Your task to perform on an android device: stop showing notifications on the lock screen Image 0: 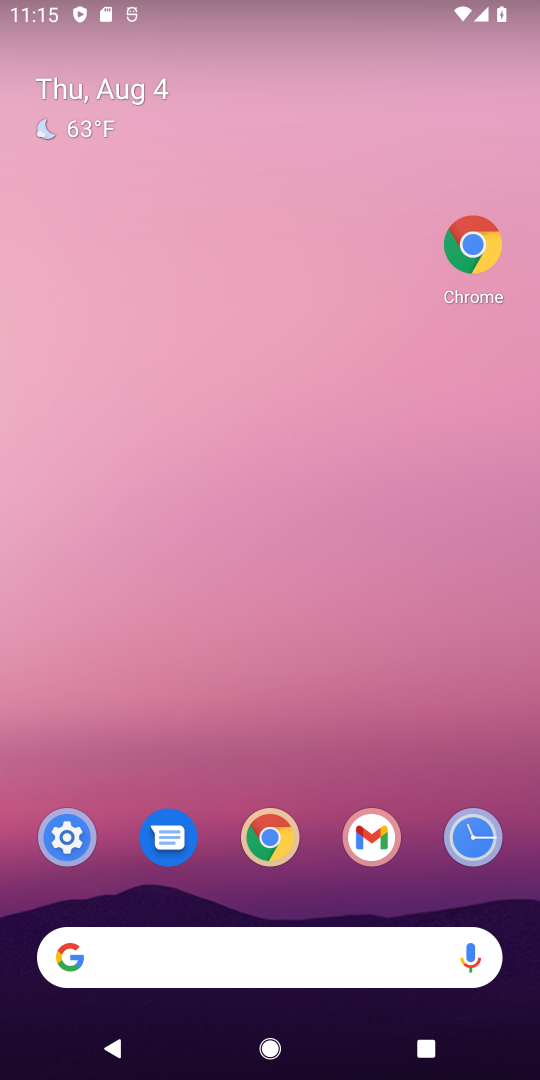
Step 0: drag from (318, 894) to (275, 164)
Your task to perform on an android device: stop showing notifications on the lock screen Image 1: 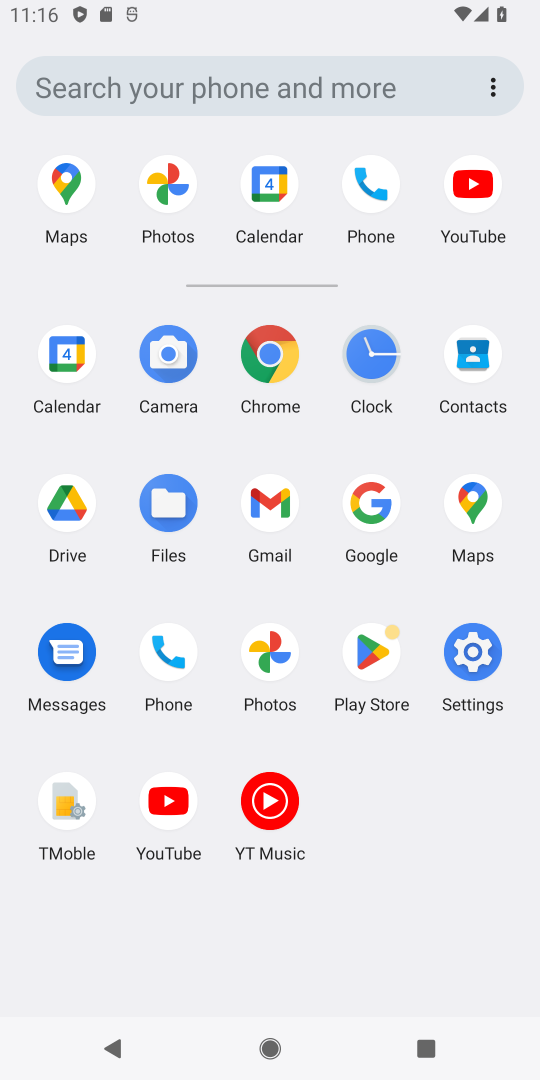
Step 1: click (472, 651)
Your task to perform on an android device: stop showing notifications on the lock screen Image 2: 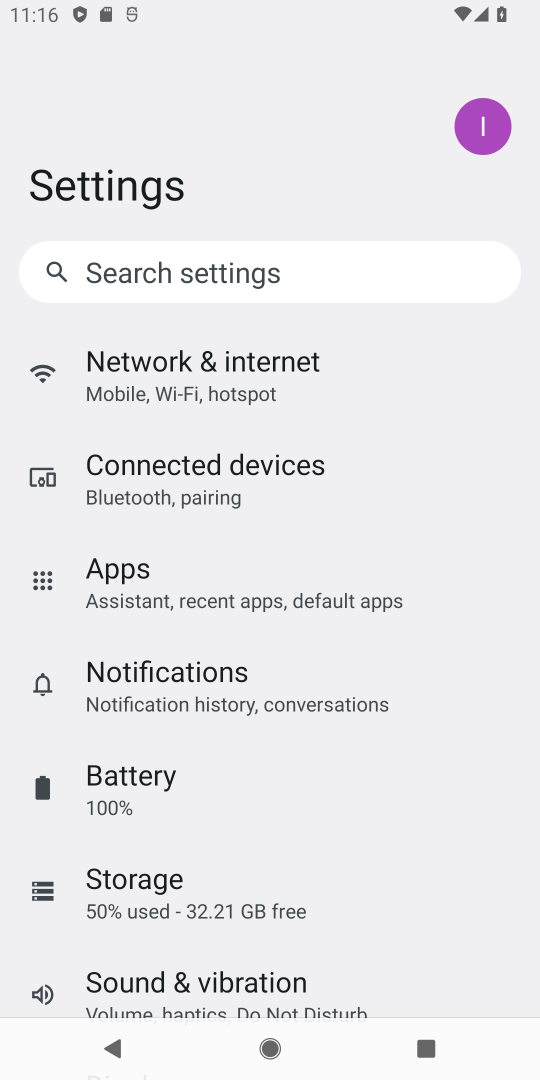
Step 2: click (283, 678)
Your task to perform on an android device: stop showing notifications on the lock screen Image 3: 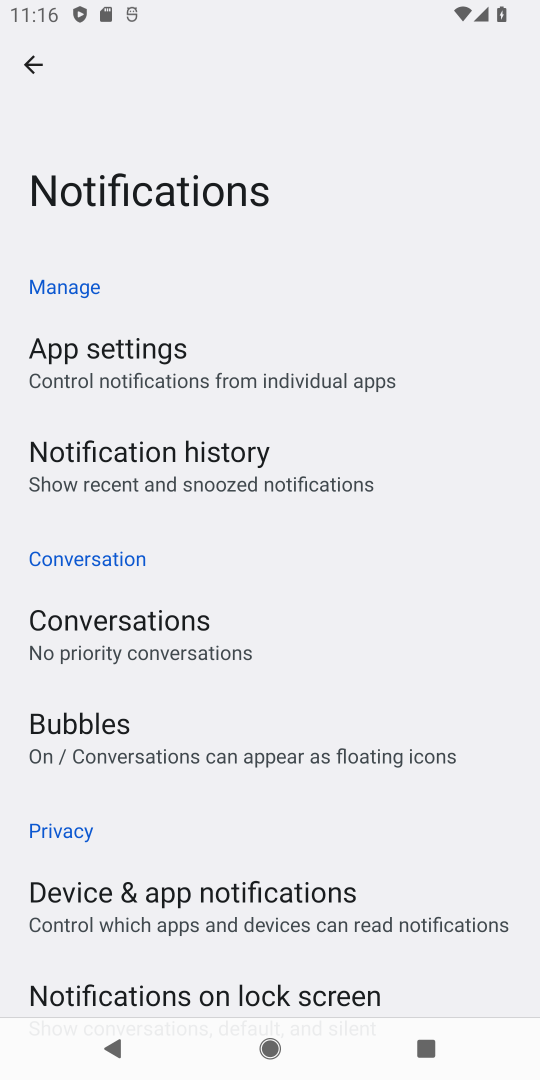
Step 3: click (358, 981)
Your task to perform on an android device: stop showing notifications on the lock screen Image 4: 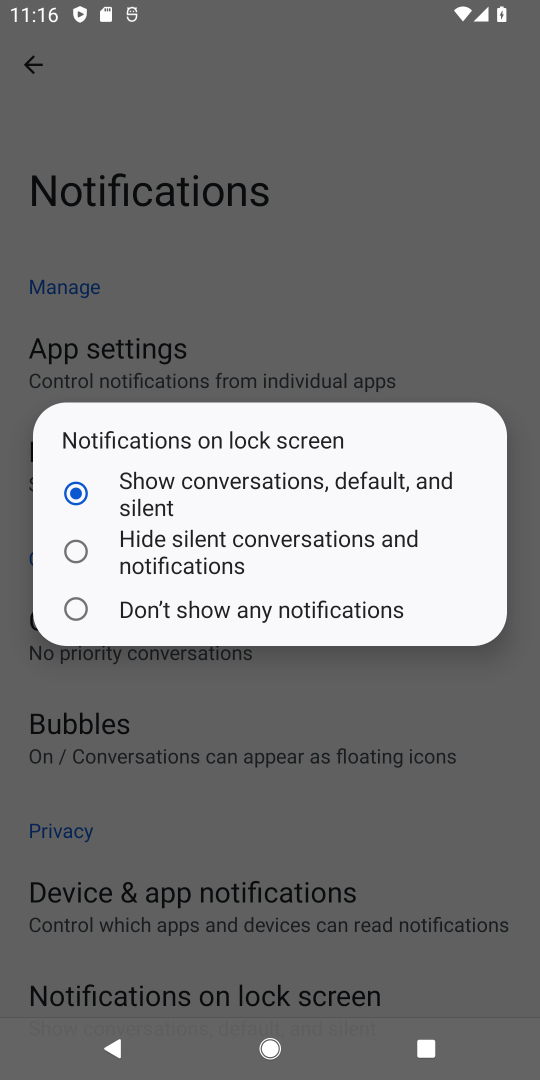
Step 4: click (72, 613)
Your task to perform on an android device: stop showing notifications on the lock screen Image 5: 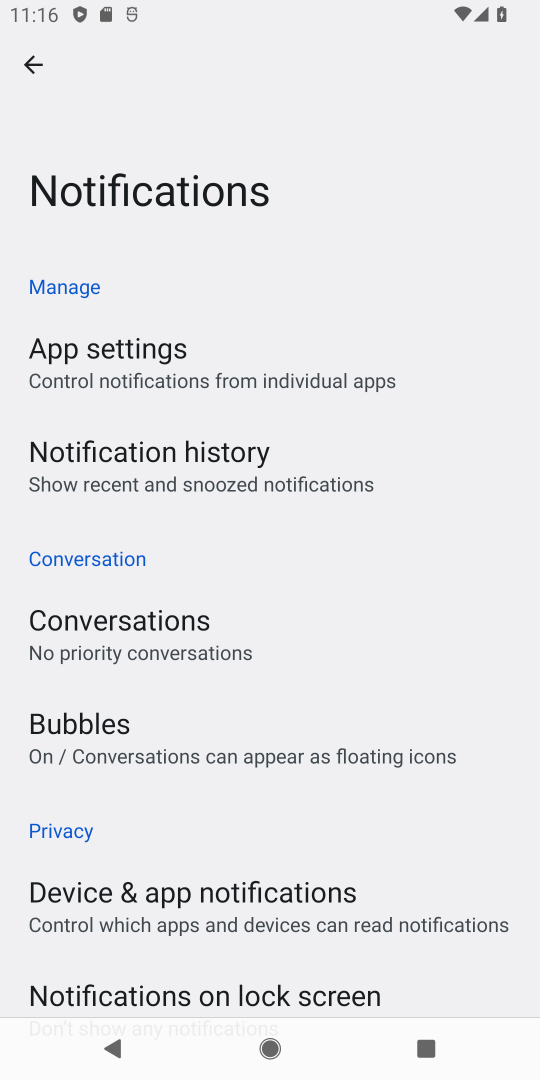
Step 5: task complete